Your task to perform on an android device: Go to Wikipedia Image 0: 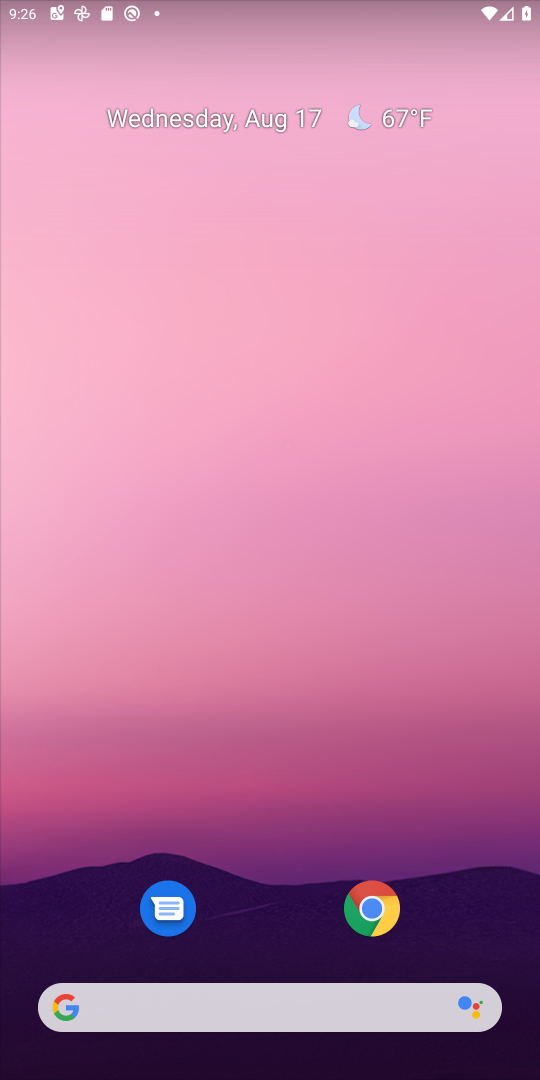
Step 0: drag from (233, 895) to (304, 11)
Your task to perform on an android device: Go to Wikipedia Image 1: 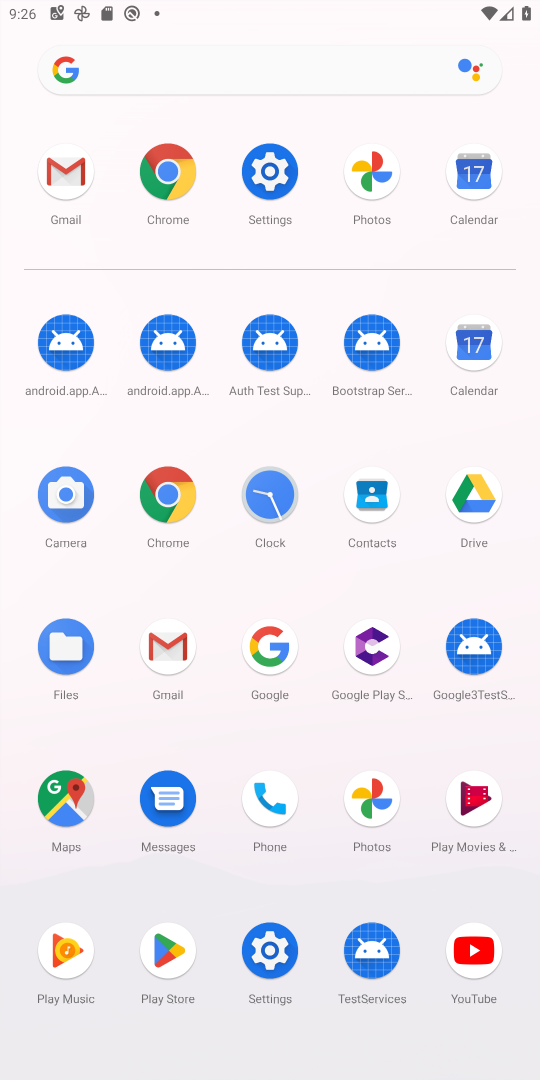
Step 1: click (161, 486)
Your task to perform on an android device: Go to Wikipedia Image 2: 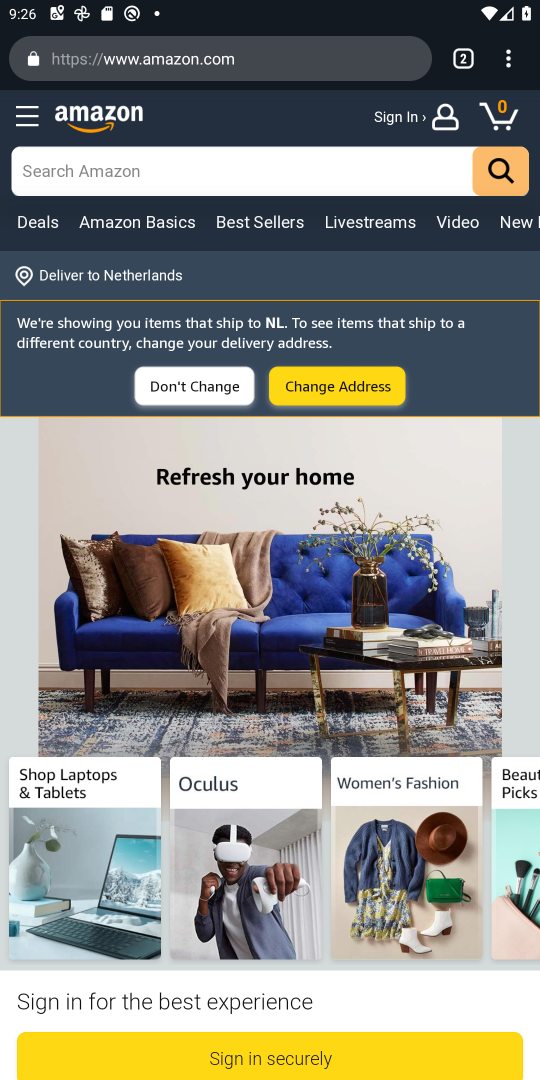
Step 2: click (210, 62)
Your task to perform on an android device: Go to Wikipedia Image 3: 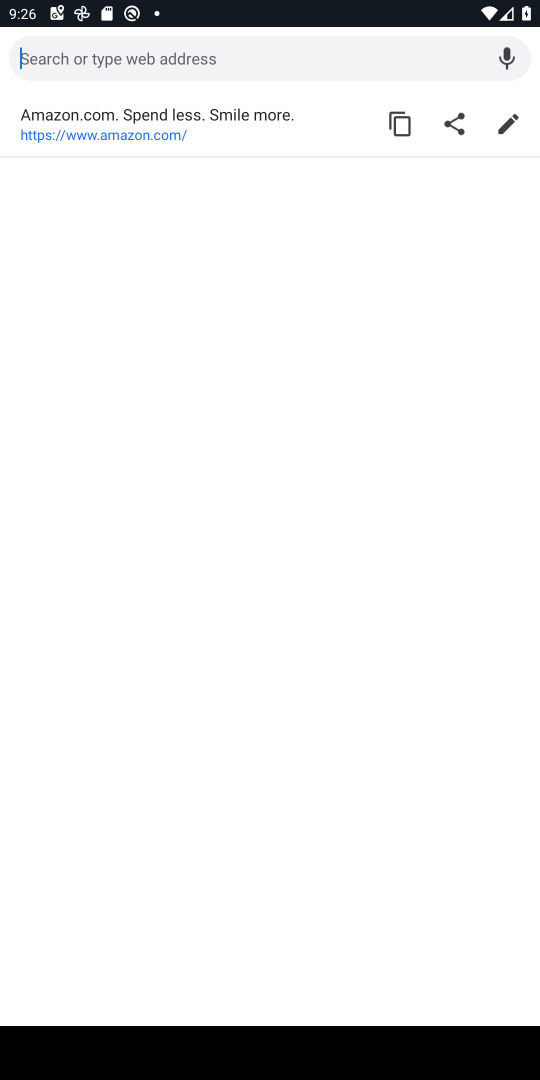
Step 3: type "Wikipedia"
Your task to perform on an android device: Go to Wikipedia Image 4: 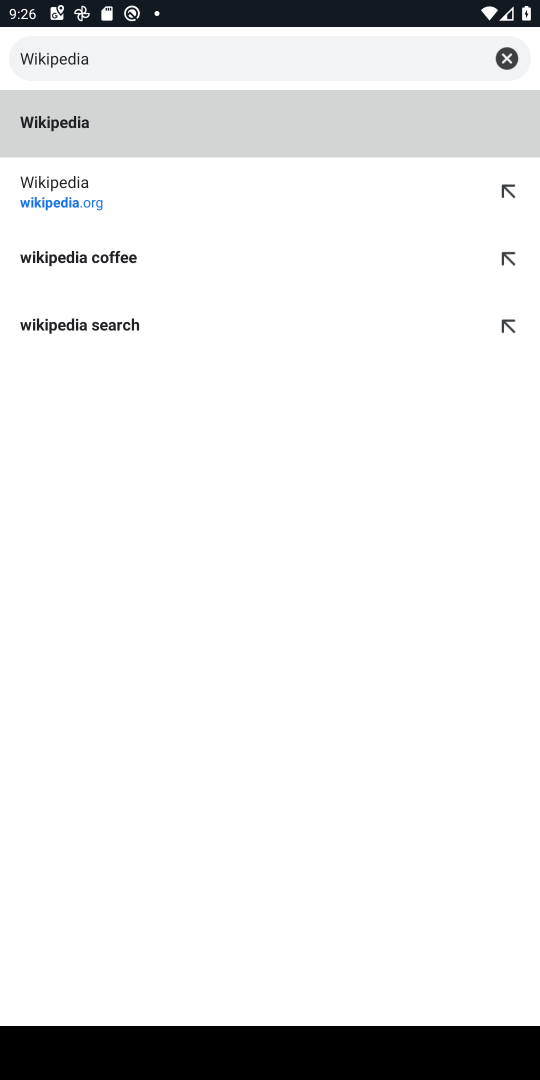
Step 4: click (64, 198)
Your task to perform on an android device: Go to Wikipedia Image 5: 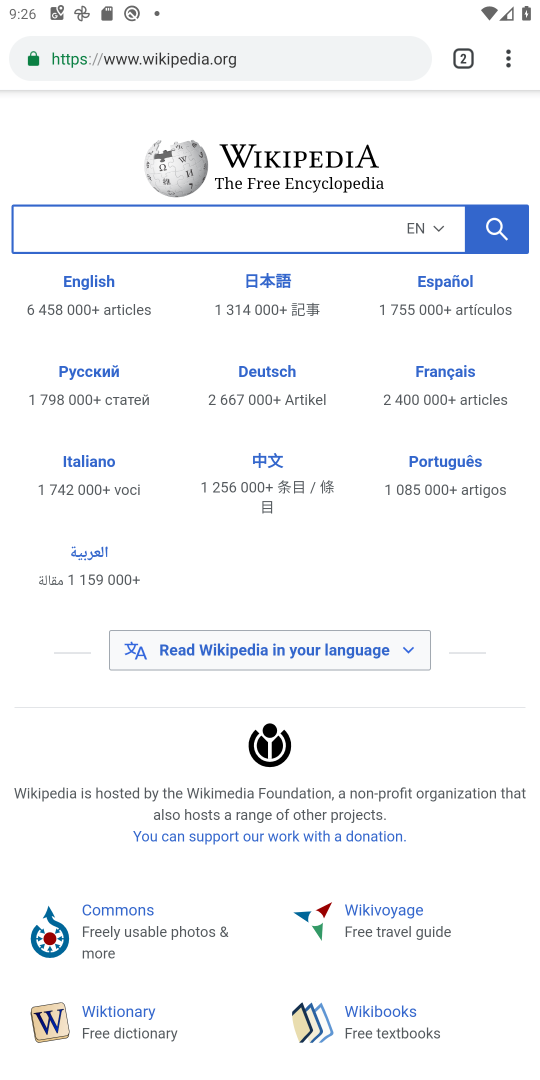
Step 5: task complete